Your task to perform on an android device: open app "Spotify" Image 0: 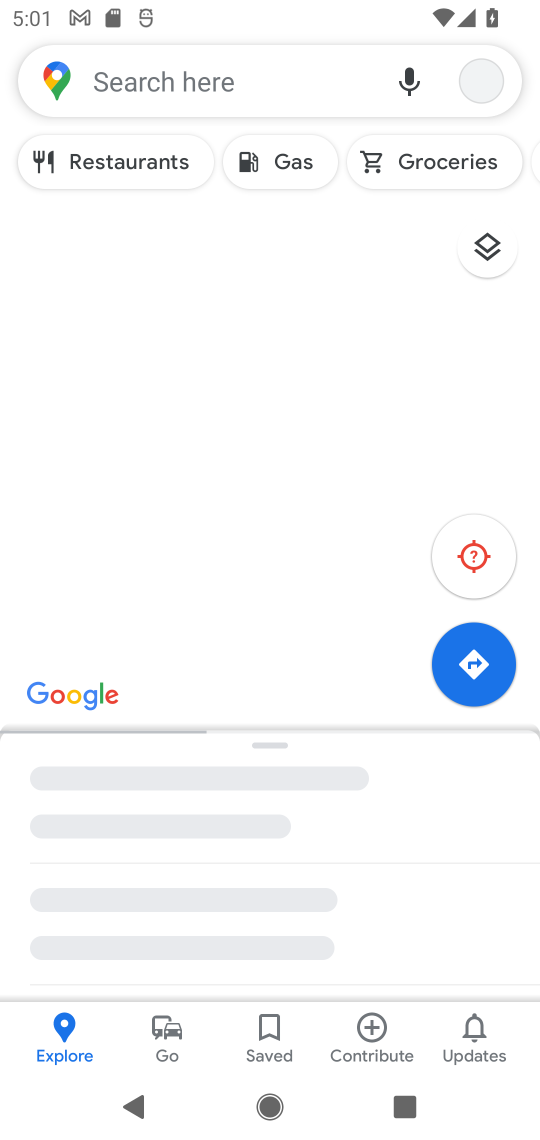
Step 0: press home button
Your task to perform on an android device: open app "Spotify" Image 1: 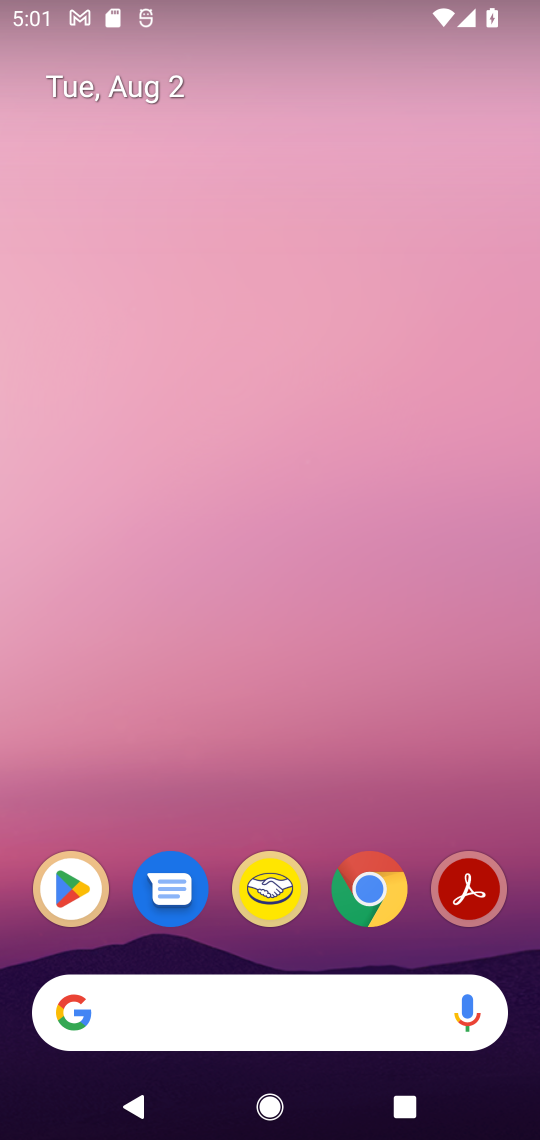
Step 1: drag from (386, 810) to (325, 69)
Your task to perform on an android device: open app "Spotify" Image 2: 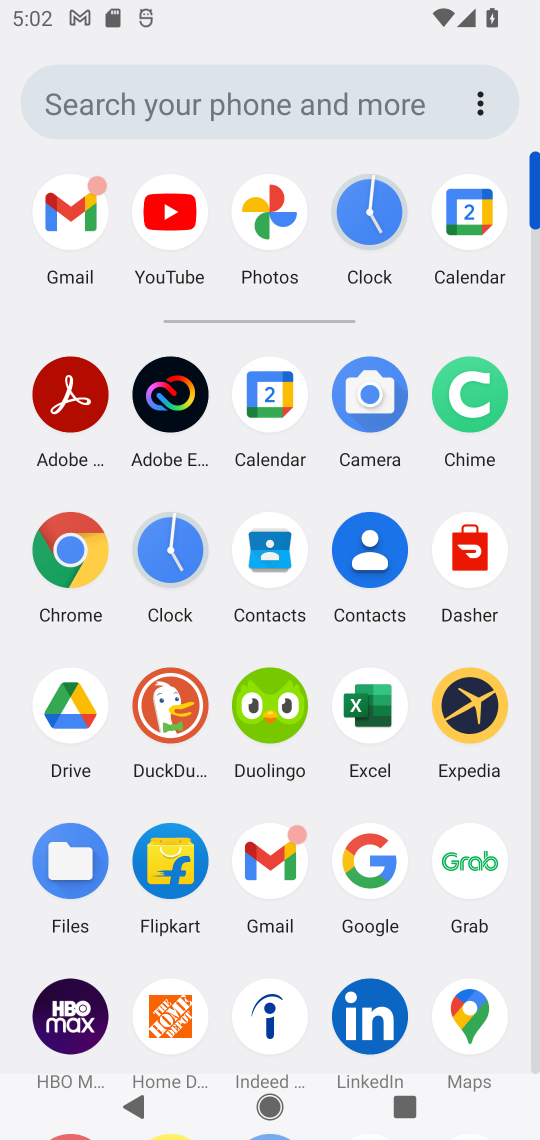
Step 2: drag from (512, 970) to (510, 644)
Your task to perform on an android device: open app "Spotify" Image 3: 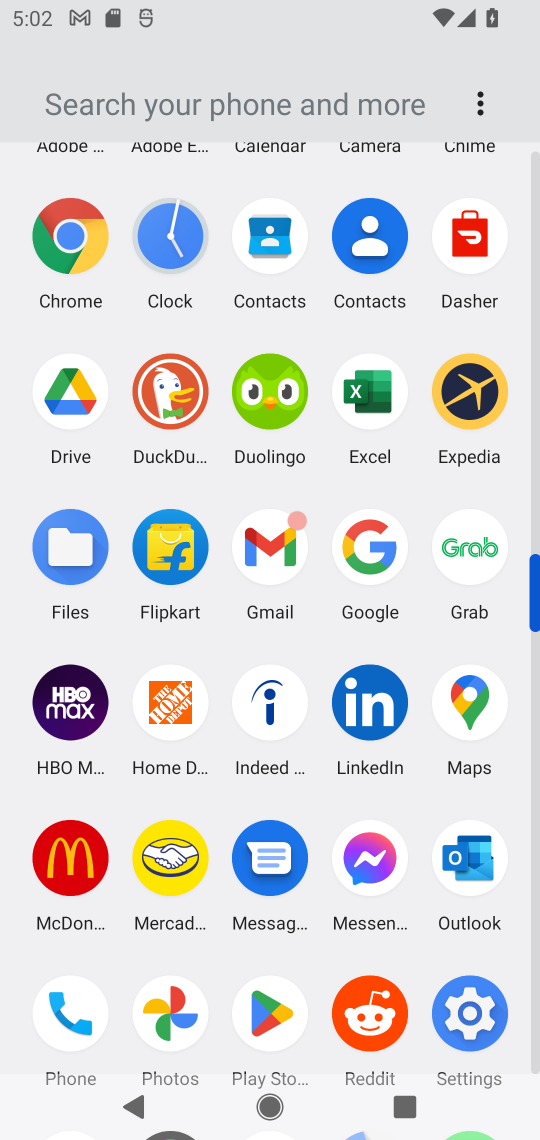
Step 3: drag from (515, 1051) to (506, 622)
Your task to perform on an android device: open app "Spotify" Image 4: 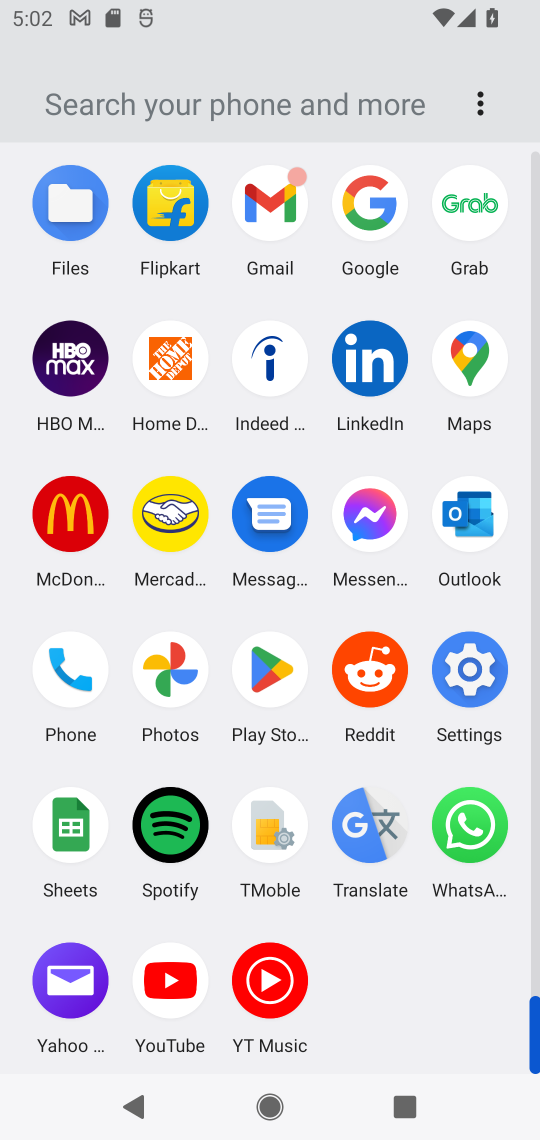
Step 4: click (266, 673)
Your task to perform on an android device: open app "Spotify" Image 5: 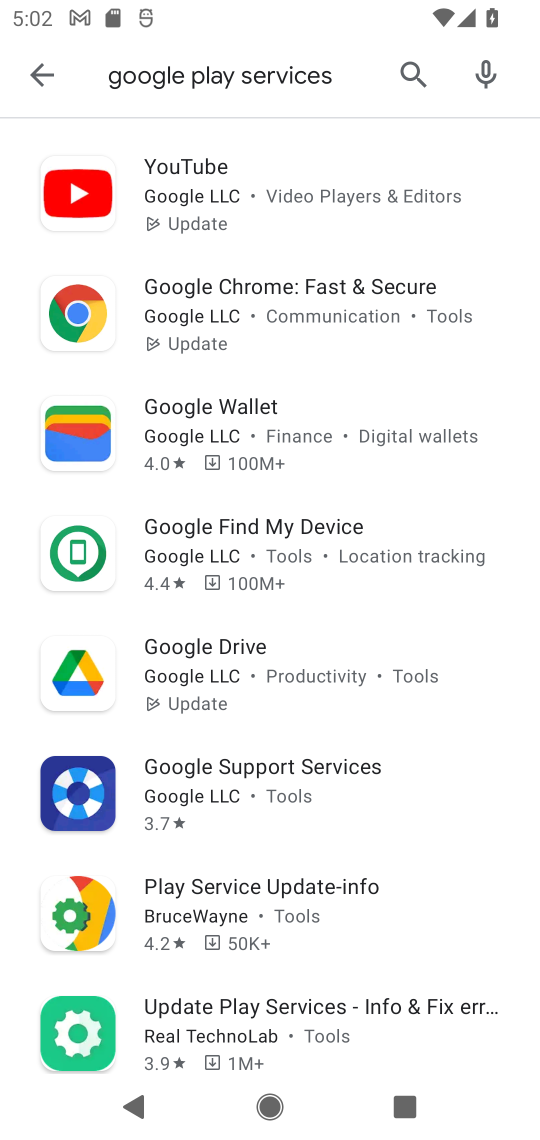
Step 5: click (410, 85)
Your task to perform on an android device: open app "Spotify" Image 6: 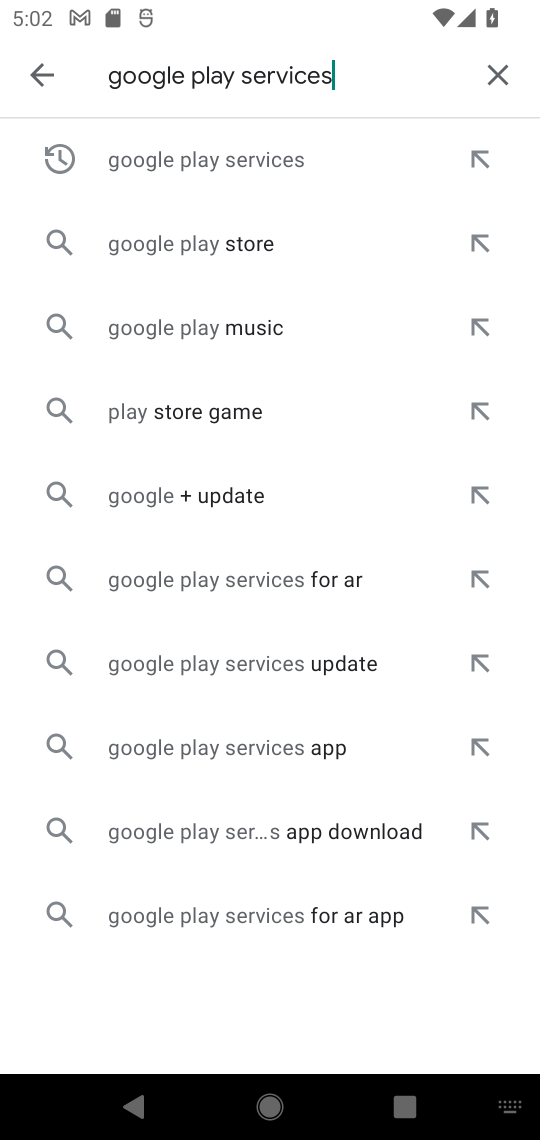
Step 6: click (502, 71)
Your task to perform on an android device: open app "Spotify" Image 7: 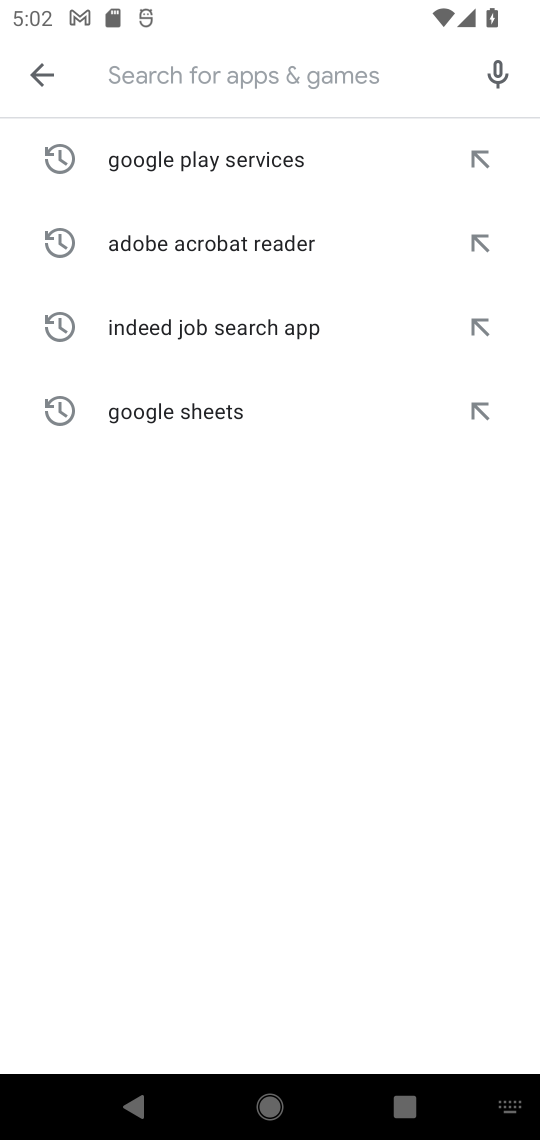
Step 7: click (300, 89)
Your task to perform on an android device: open app "Spotify" Image 8: 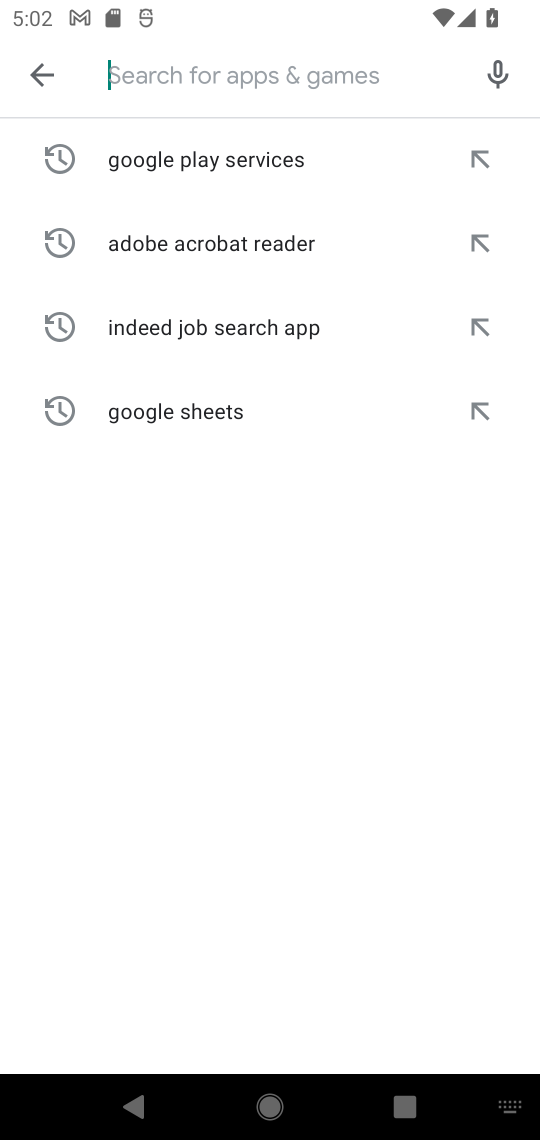
Step 8: type "Spotify"
Your task to perform on an android device: open app "Spotify" Image 9: 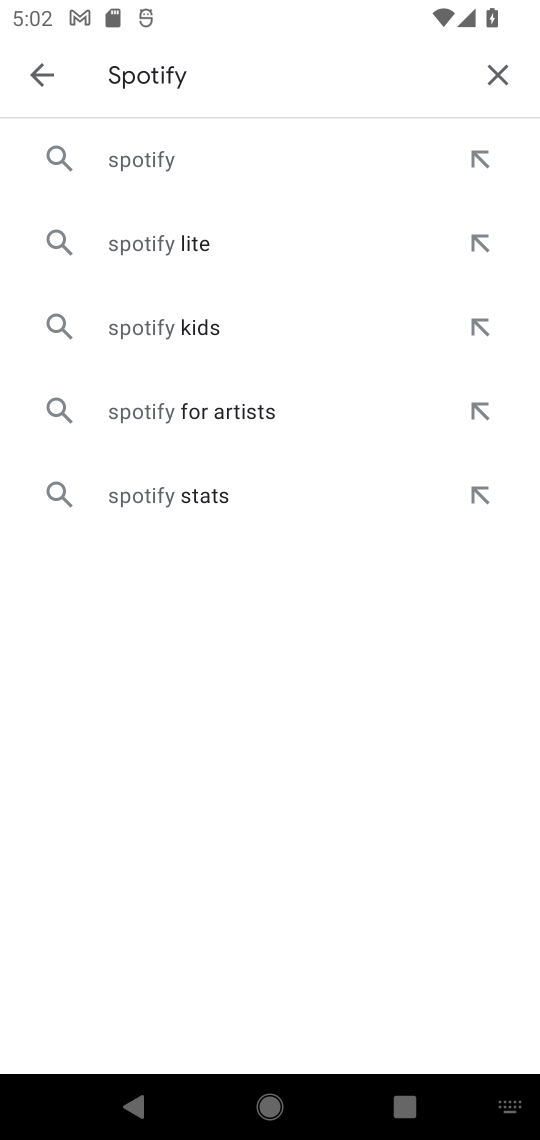
Step 9: click (249, 160)
Your task to perform on an android device: open app "Spotify" Image 10: 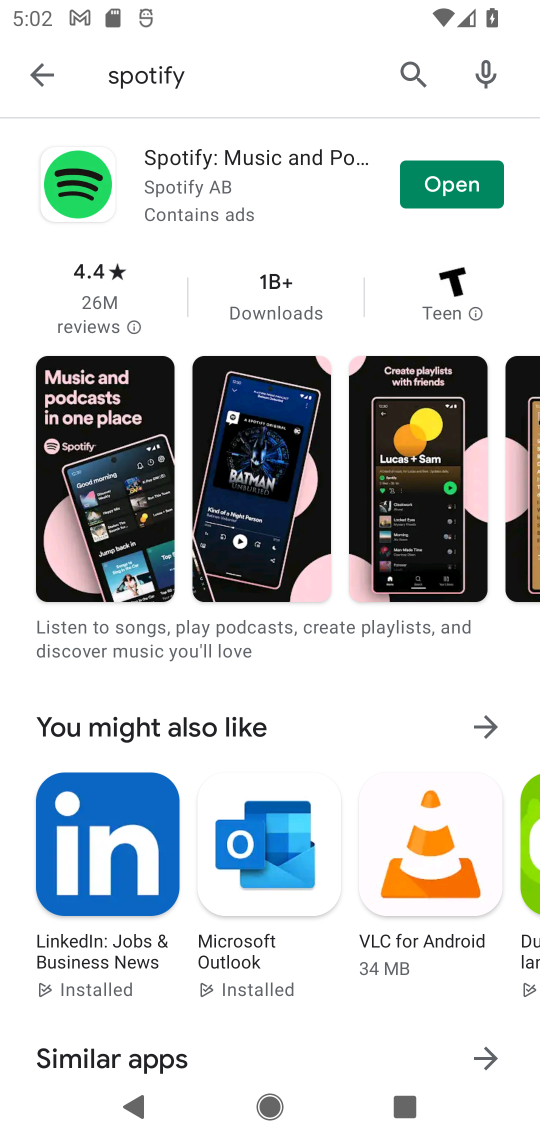
Step 10: click (454, 194)
Your task to perform on an android device: open app "Spotify" Image 11: 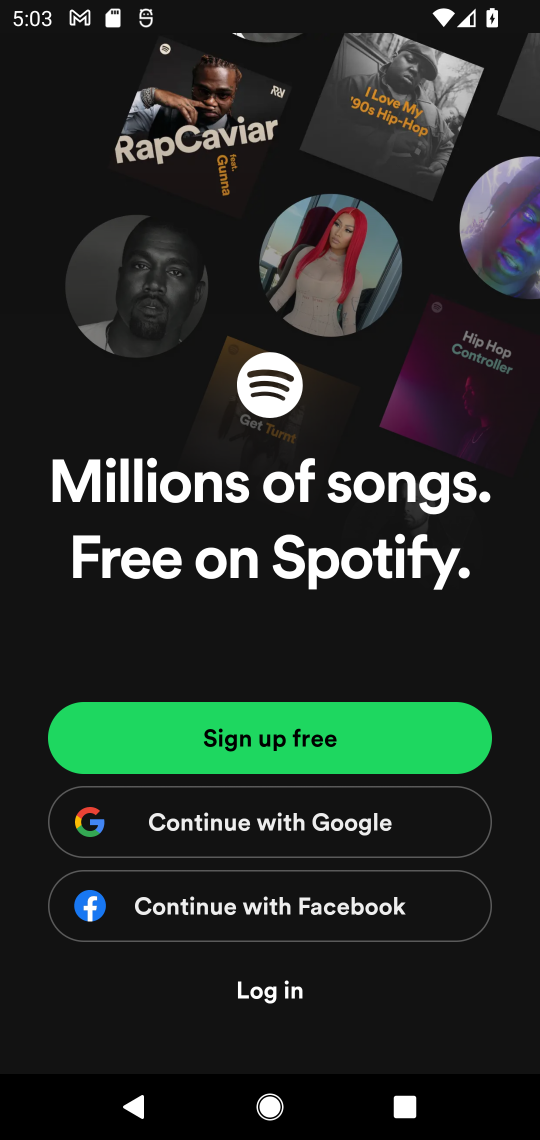
Step 11: task complete